Your task to perform on an android device: toggle pop-ups in chrome Image 0: 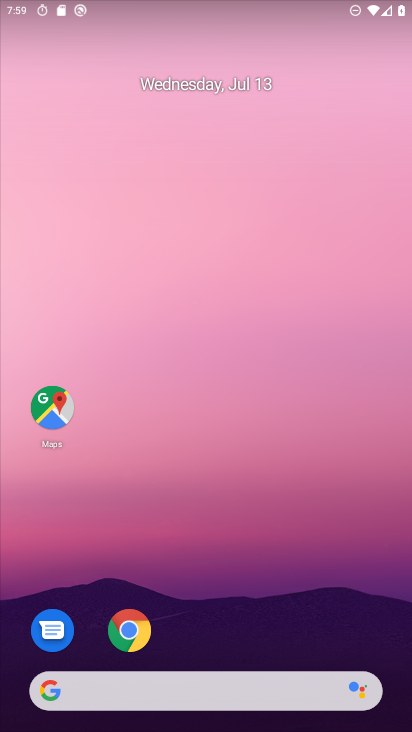
Step 0: drag from (341, 635) to (216, 19)
Your task to perform on an android device: toggle pop-ups in chrome Image 1: 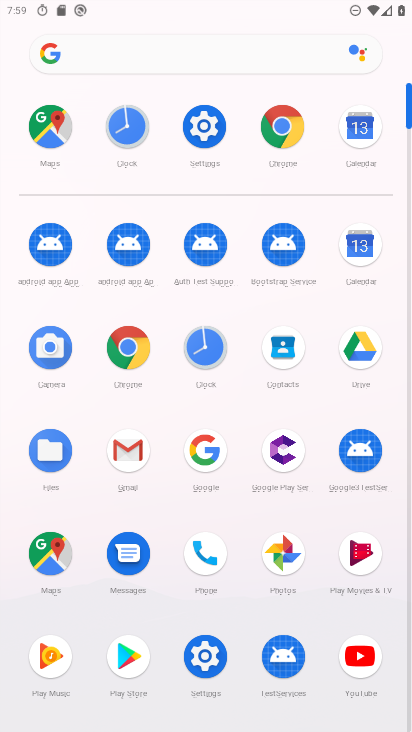
Step 1: click (288, 126)
Your task to perform on an android device: toggle pop-ups in chrome Image 2: 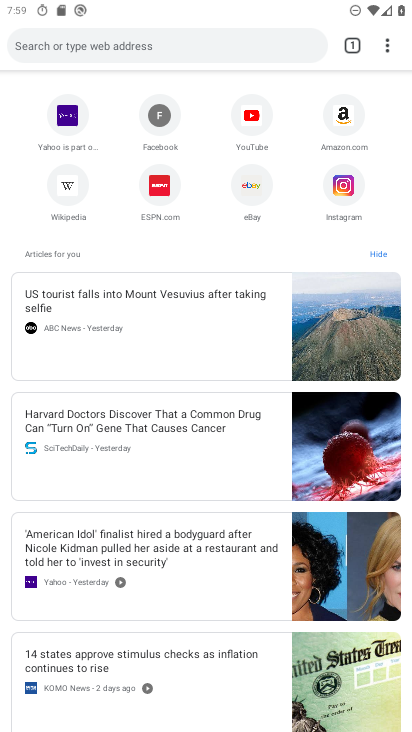
Step 2: click (390, 46)
Your task to perform on an android device: toggle pop-ups in chrome Image 3: 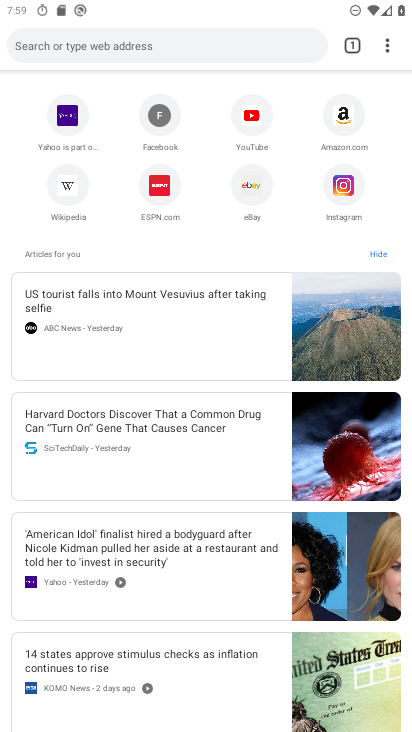
Step 3: click (390, 46)
Your task to perform on an android device: toggle pop-ups in chrome Image 4: 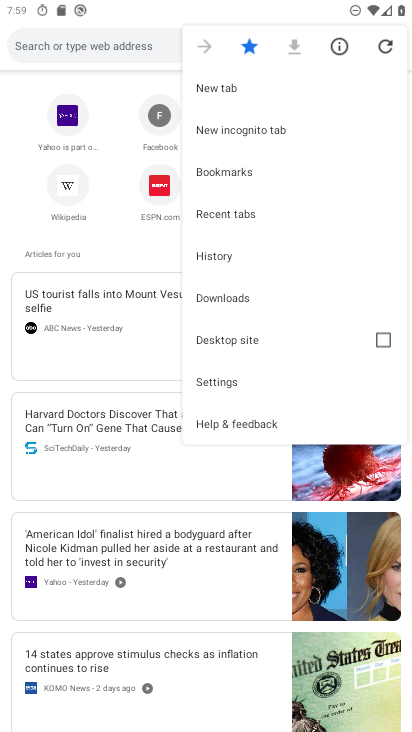
Step 4: click (218, 389)
Your task to perform on an android device: toggle pop-ups in chrome Image 5: 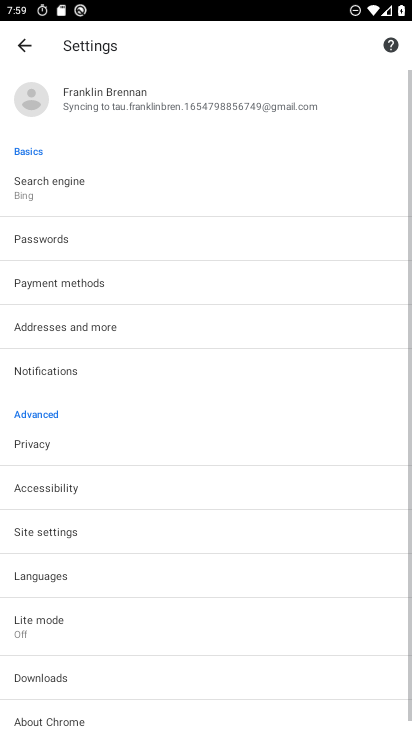
Step 5: click (62, 525)
Your task to perform on an android device: toggle pop-ups in chrome Image 6: 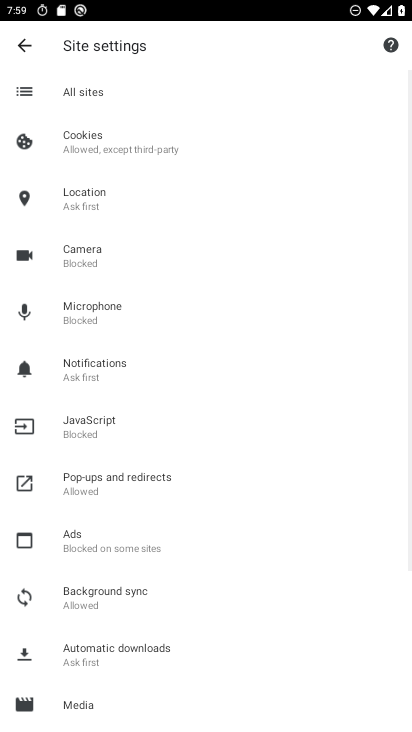
Step 6: click (129, 476)
Your task to perform on an android device: toggle pop-ups in chrome Image 7: 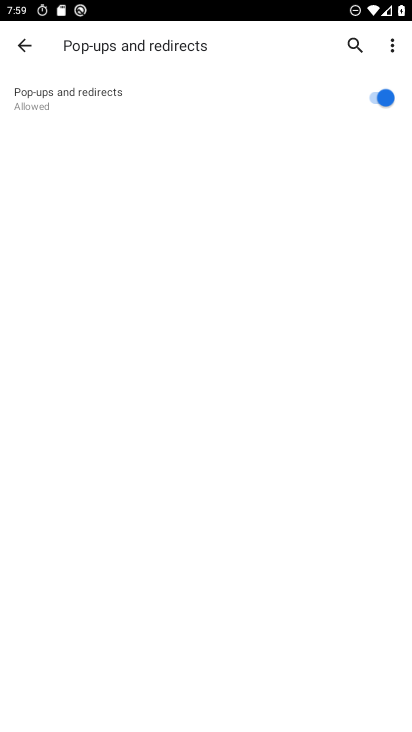
Step 7: click (382, 100)
Your task to perform on an android device: toggle pop-ups in chrome Image 8: 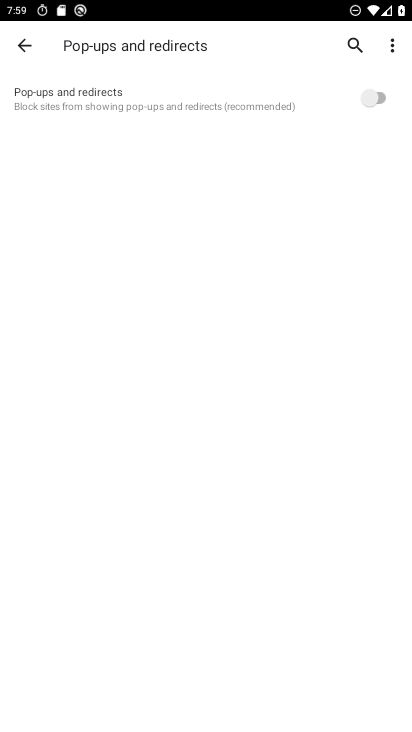
Step 8: task complete